Your task to perform on an android device: see creations saved in the google photos Image 0: 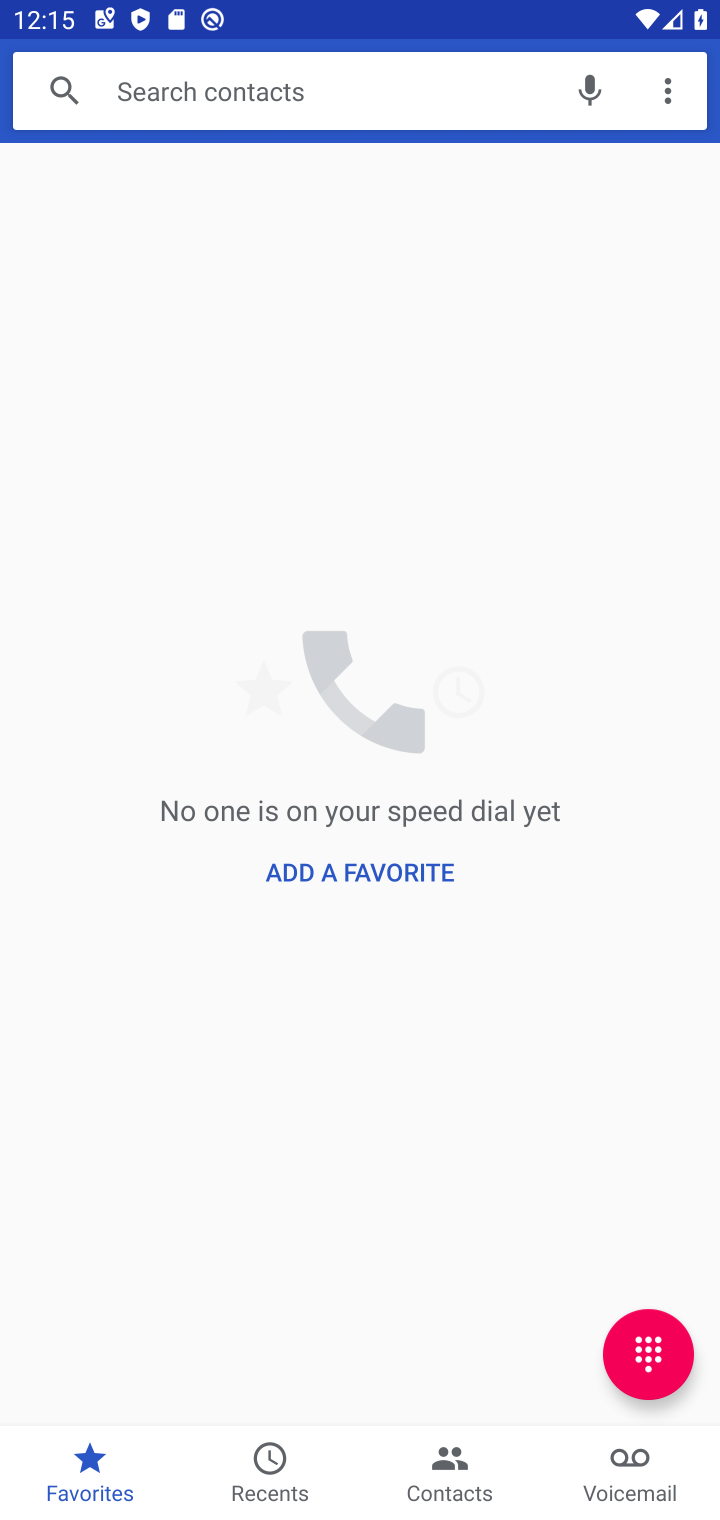
Step 0: press back button
Your task to perform on an android device: see creations saved in the google photos Image 1: 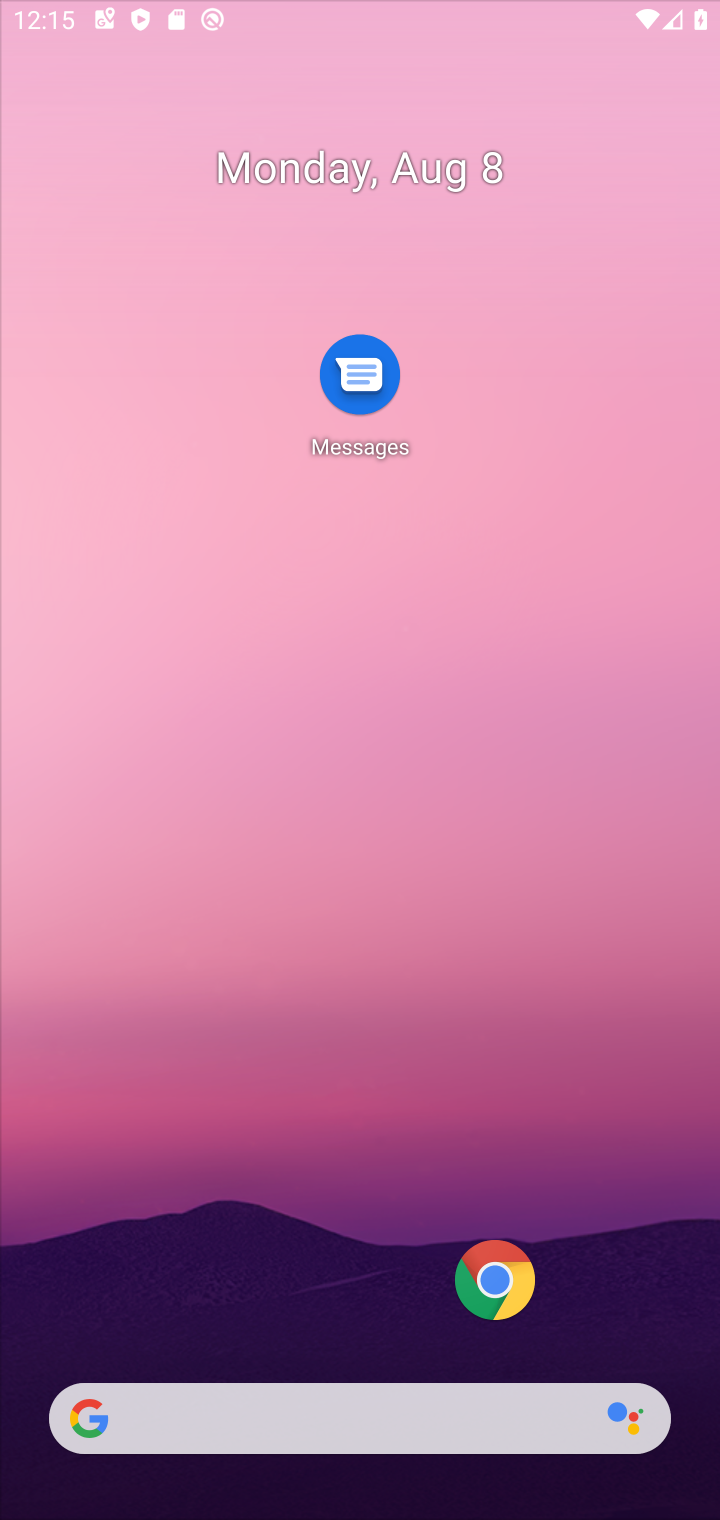
Step 1: drag from (363, 1046) to (422, 24)
Your task to perform on an android device: see creations saved in the google photos Image 2: 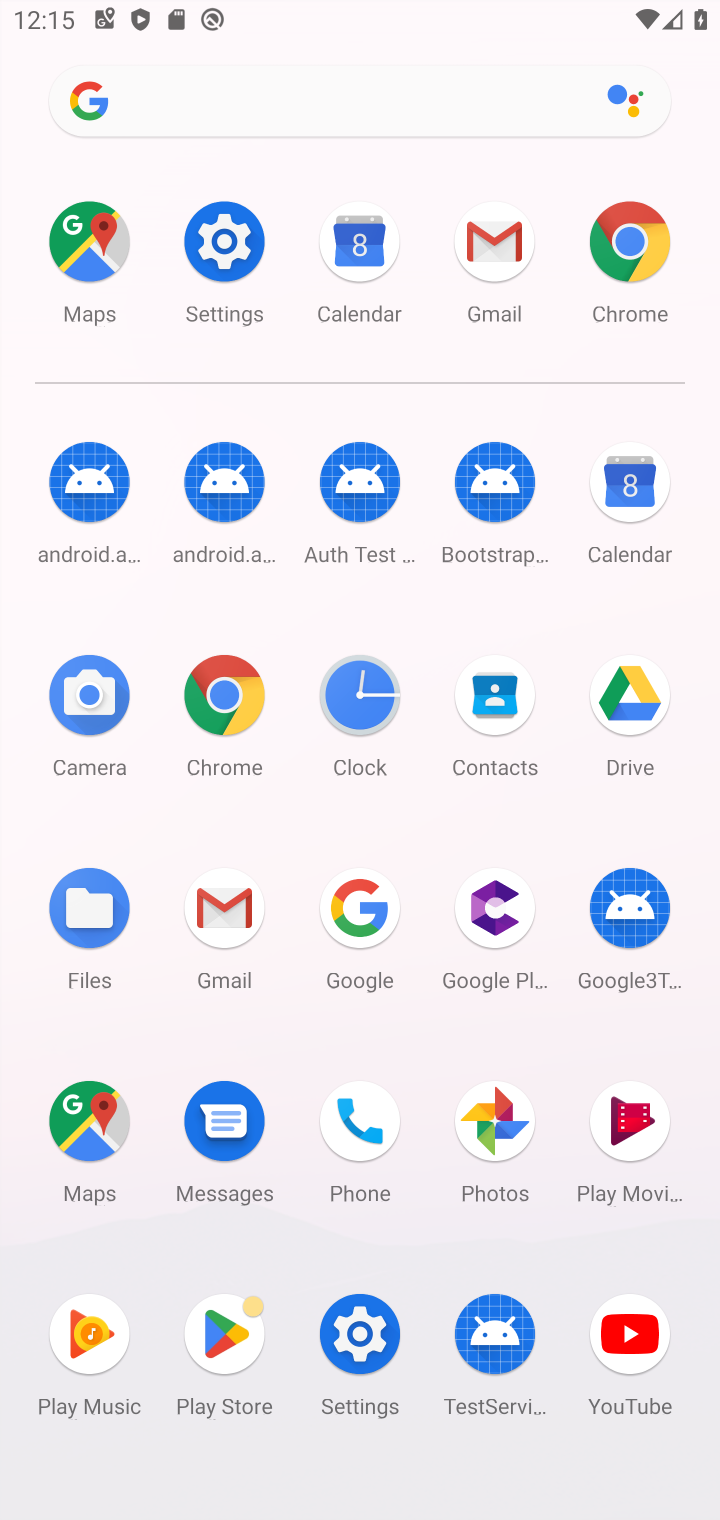
Step 2: click (494, 1143)
Your task to perform on an android device: see creations saved in the google photos Image 3: 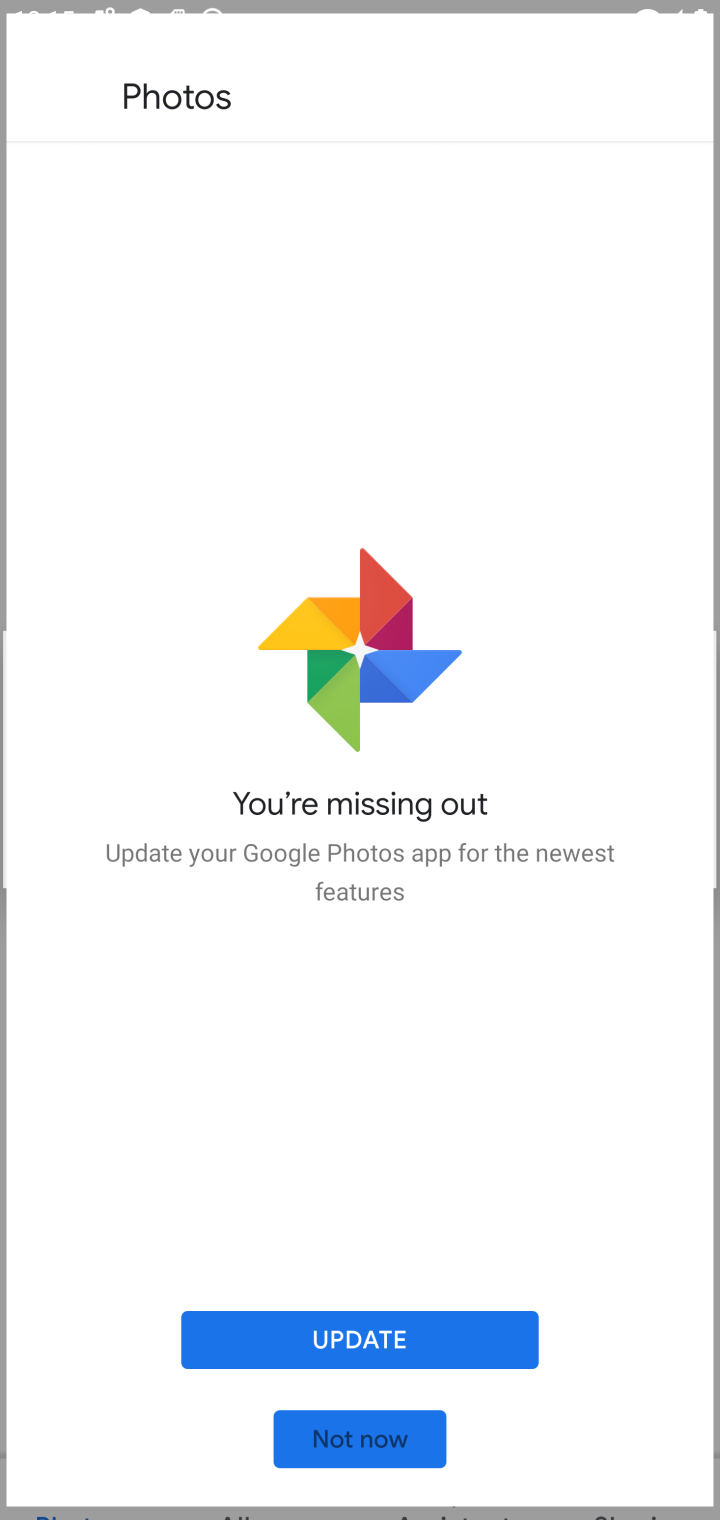
Step 3: click (525, 819)
Your task to perform on an android device: see creations saved in the google photos Image 4: 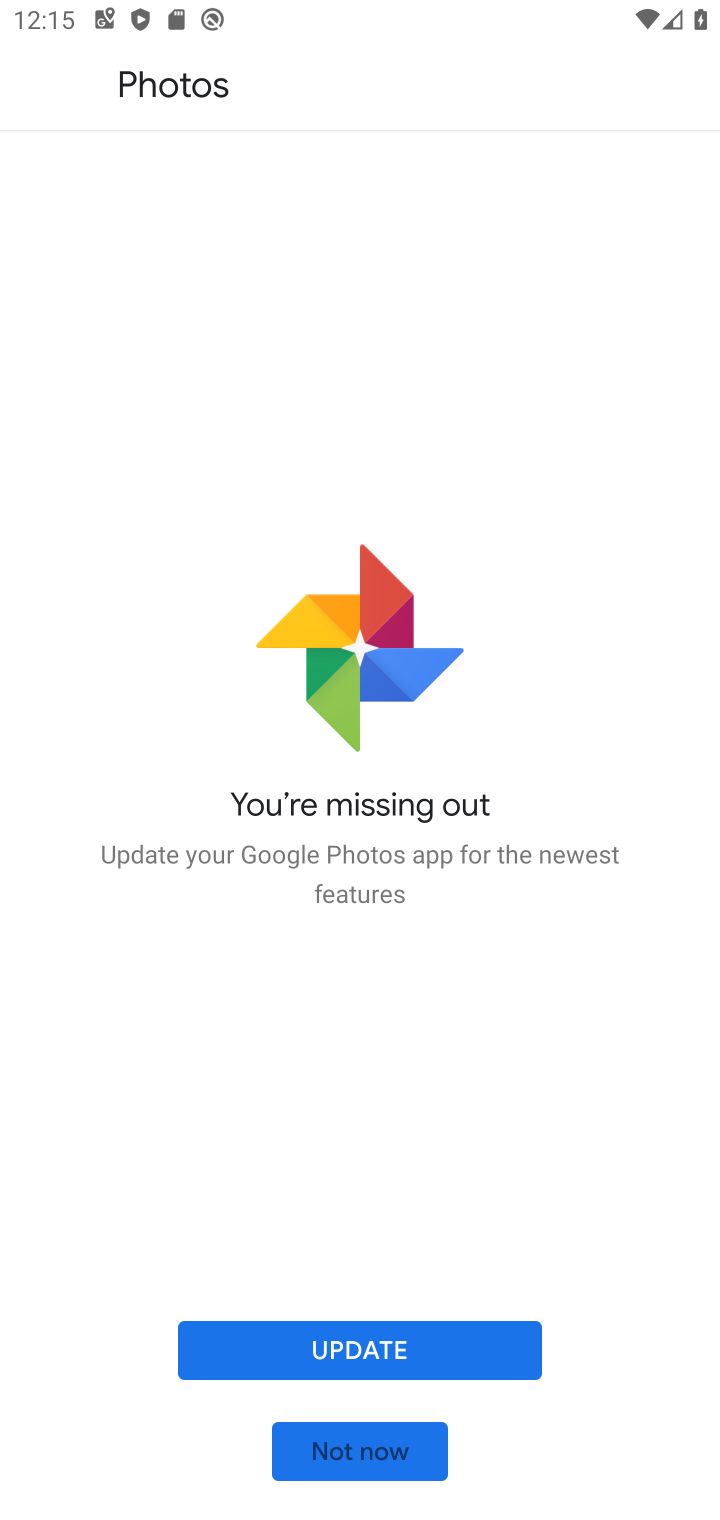
Step 4: click (371, 1459)
Your task to perform on an android device: see creations saved in the google photos Image 5: 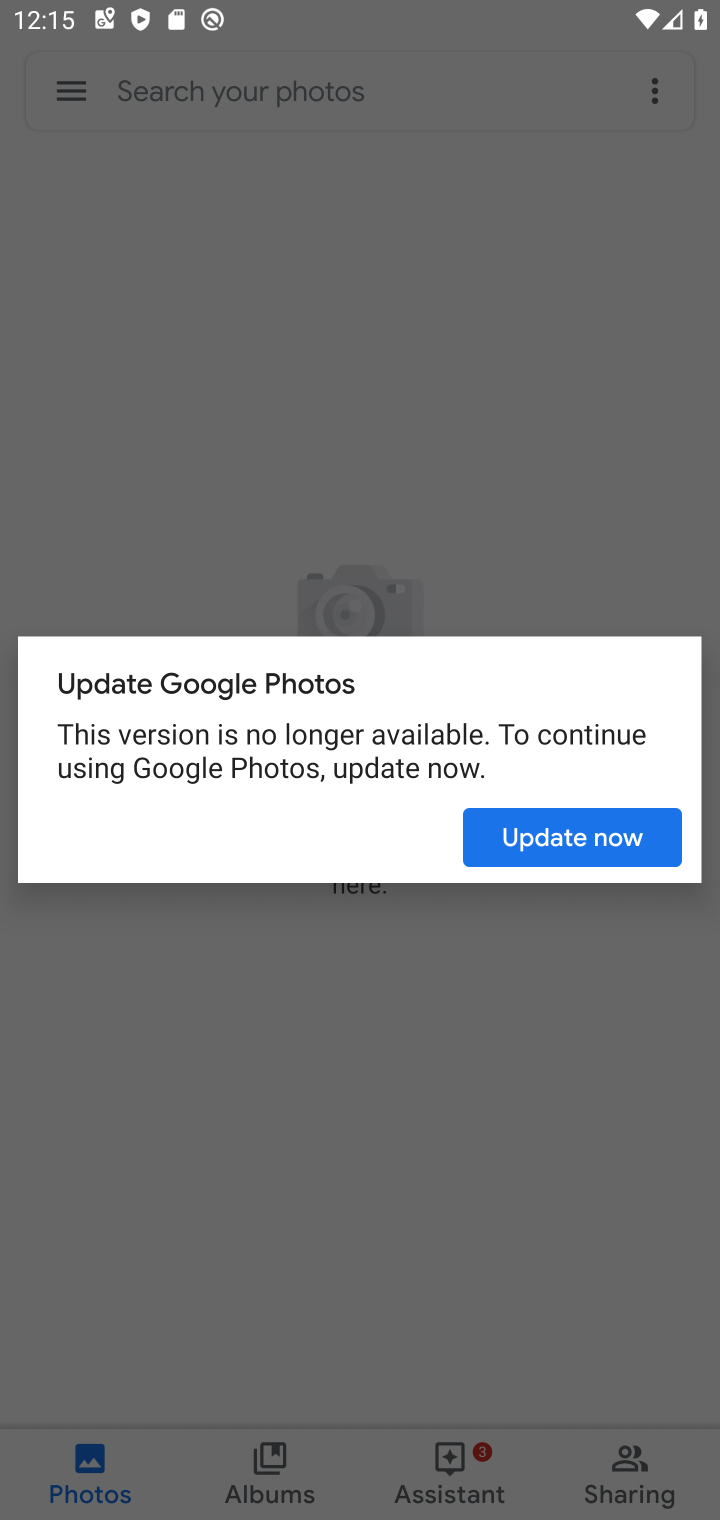
Step 5: click (572, 835)
Your task to perform on an android device: see creations saved in the google photos Image 6: 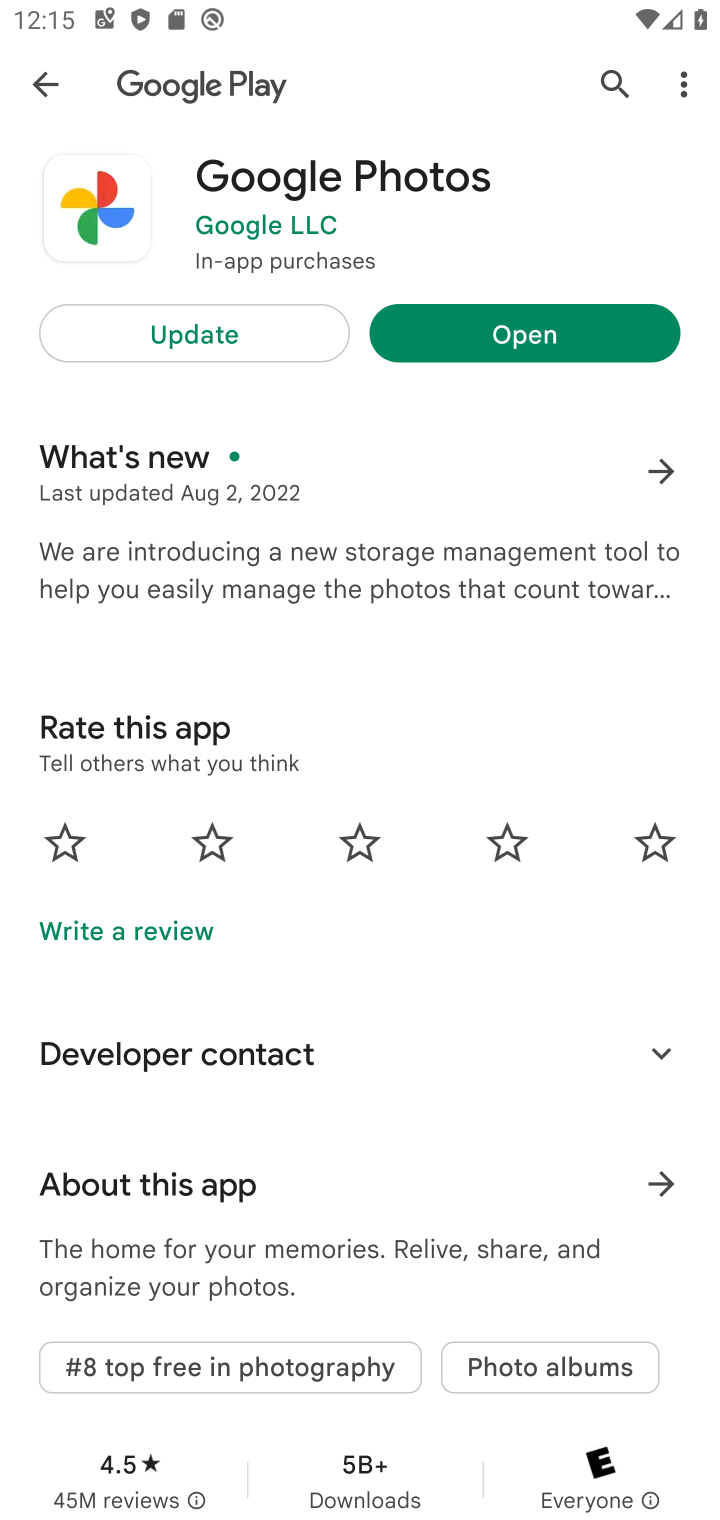
Step 6: click (532, 351)
Your task to perform on an android device: see creations saved in the google photos Image 7: 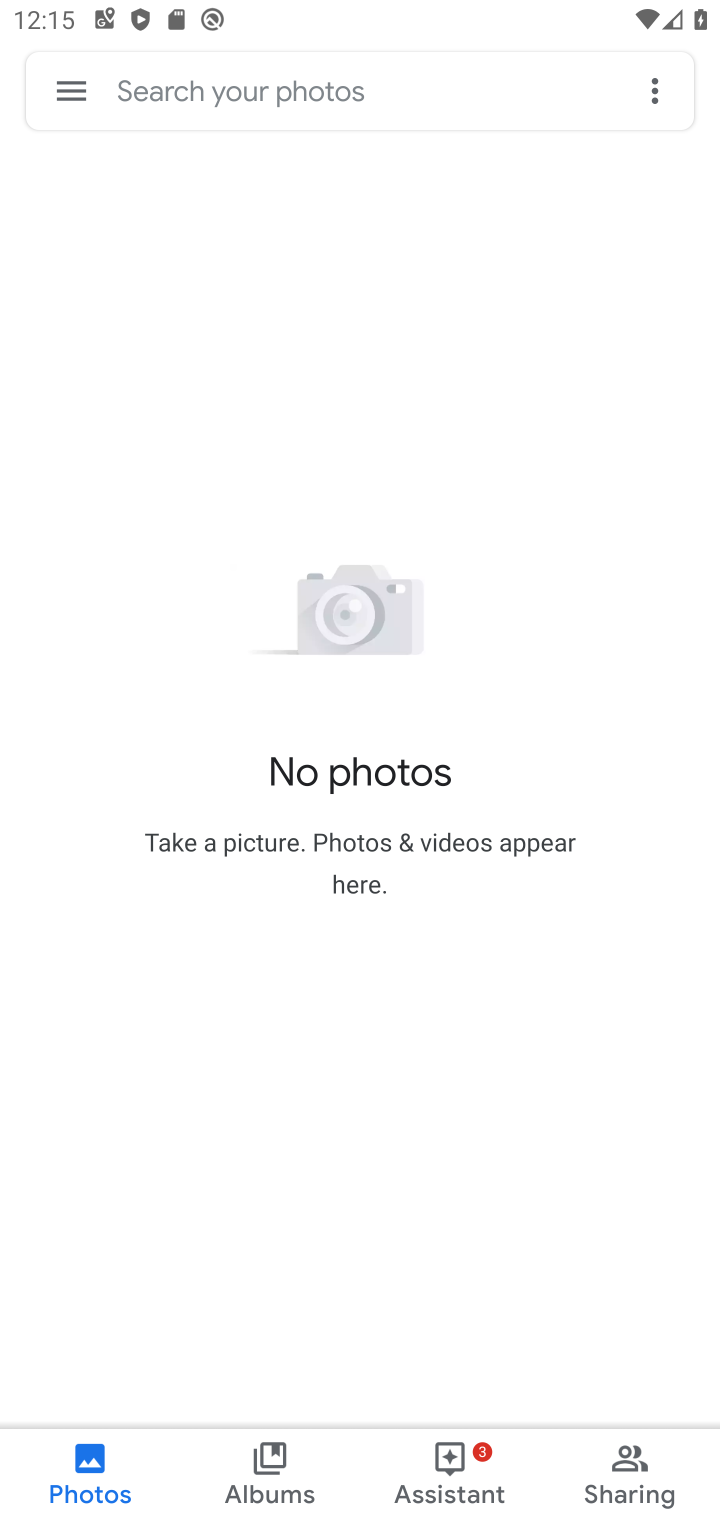
Step 7: click (48, 73)
Your task to perform on an android device: see creations saved in the google photos Image 8: 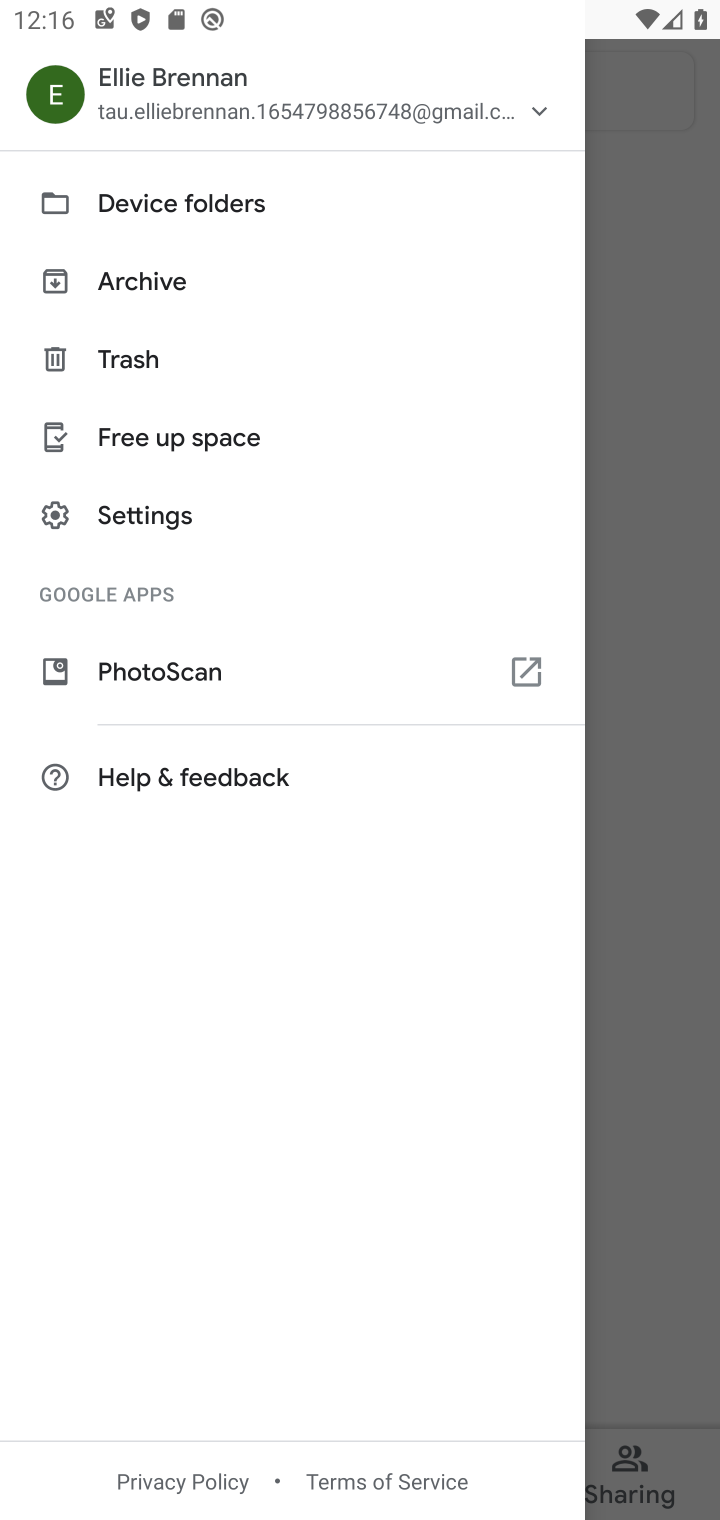
Step 8: click (131, 290)
Your task to perform on an android device: see creations saved in the google photos Image 9: 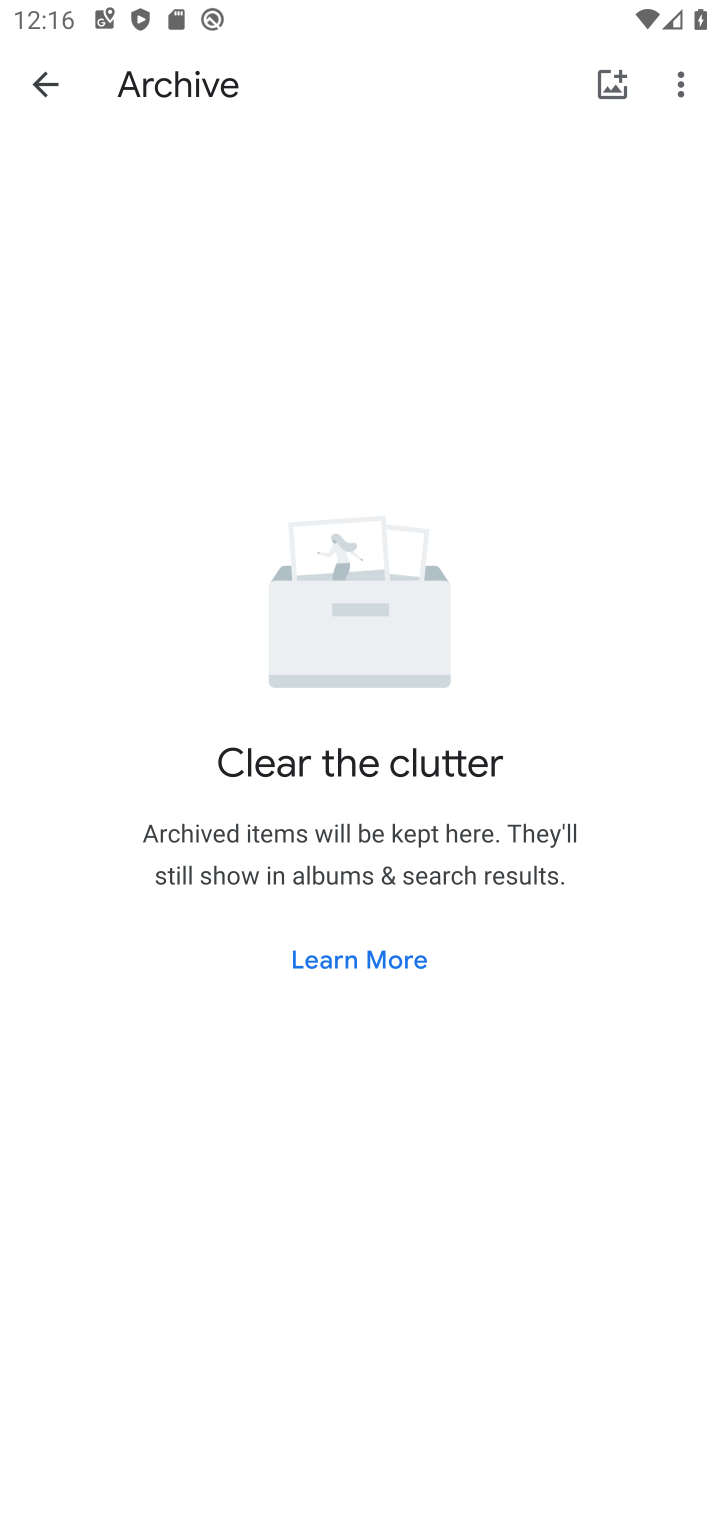
Step 9: task complete